Your task to perform on an android device: Open my contact list Image 0: 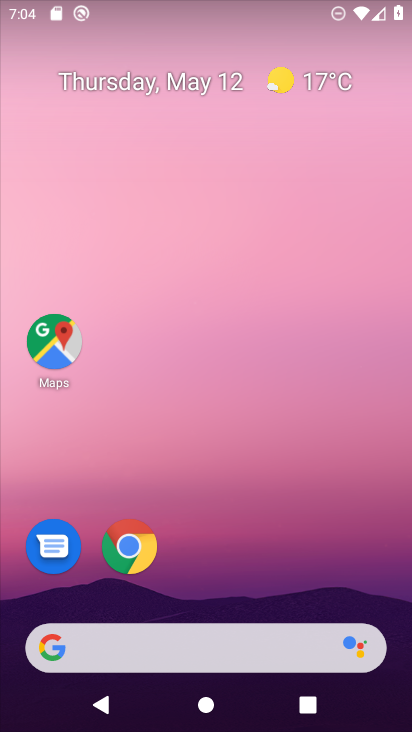
Step 0: drag from (275, 511) to (156, 82)
Your task to perform on an android device: Open my contact list Image 1: 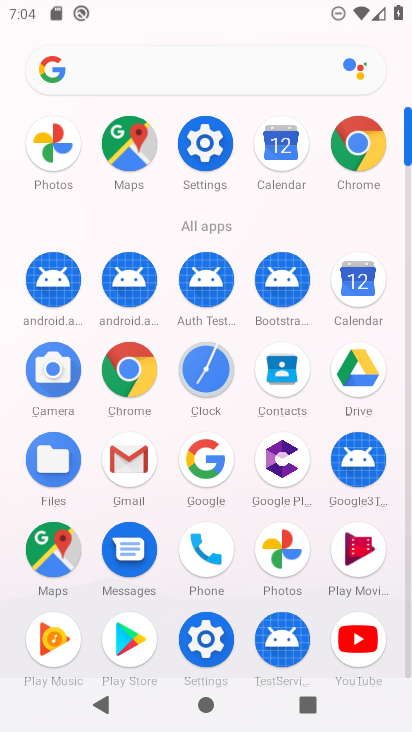
Step 1: click (279, 378)
Your task to perform on an android device: Open my contact list Image 2: 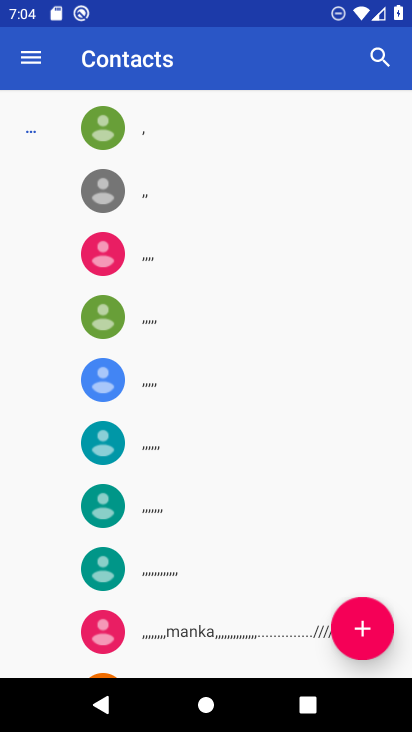
Step 2: task complete